Your task to perform on an android device: Add "bose soundlink" to the cart on bestbuy Image 0: 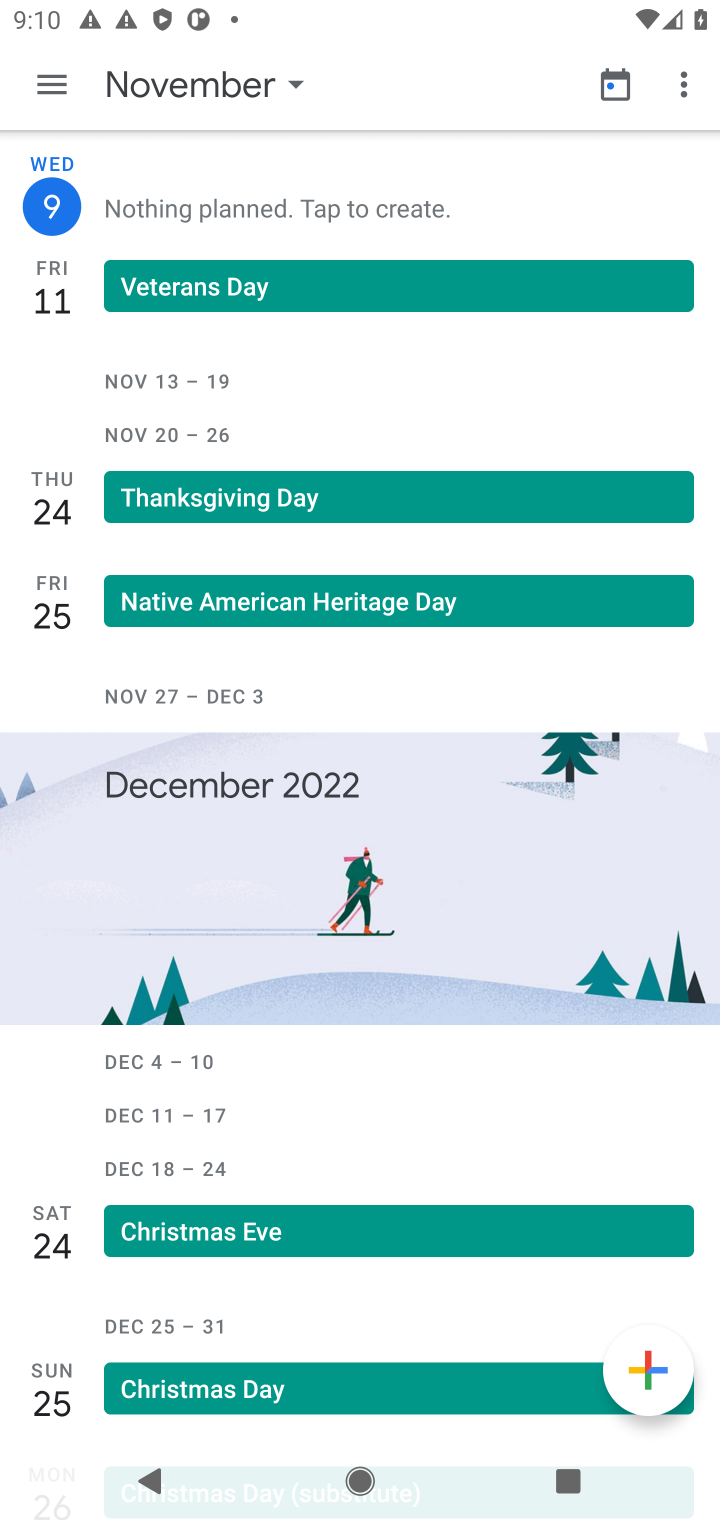
Step 0: press home button
Your task to perform on an android device: Add "bose soundlink" to the cart on bestbuy Image 1: 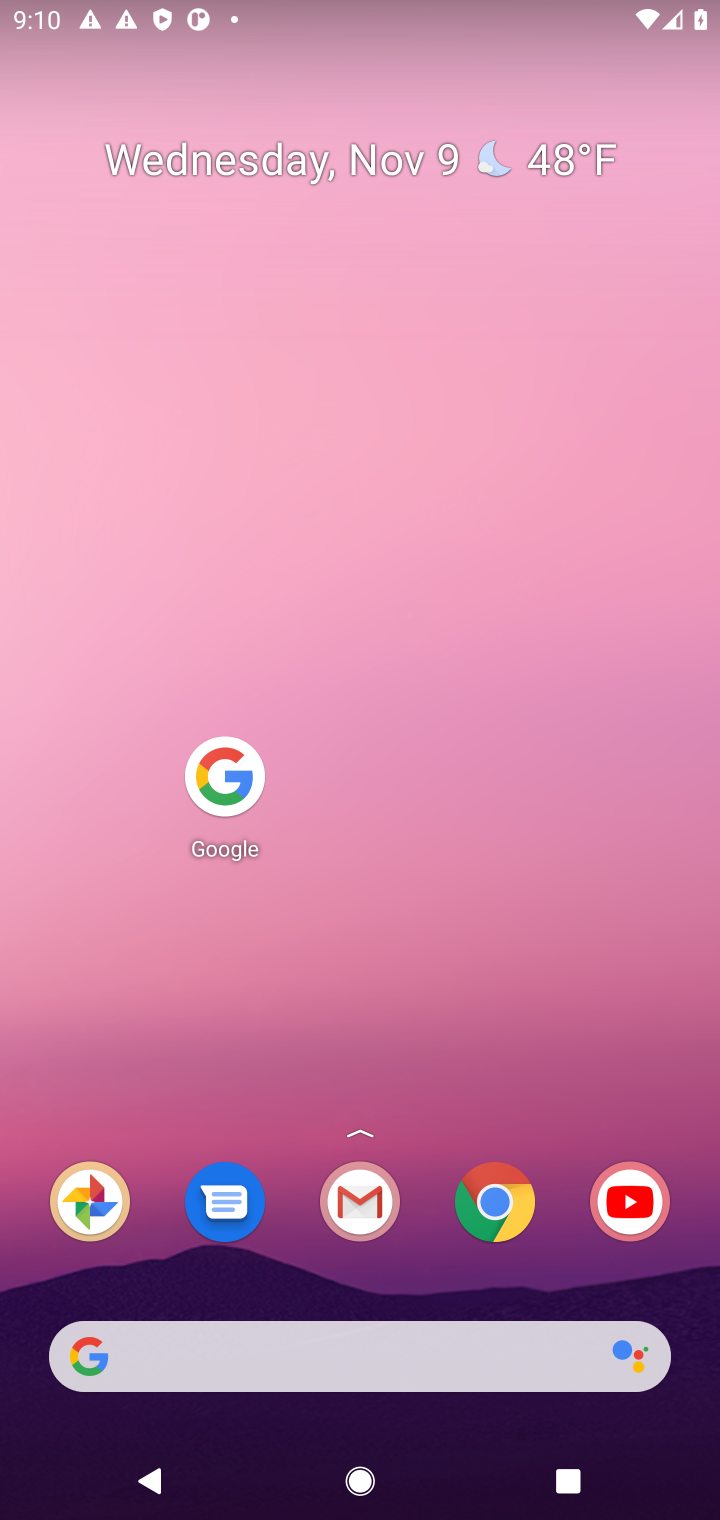
Step 1: click (228, 779)
Your task to perform on an android device: Add "bose soundlink" to the cart on bestbuy Image 2: 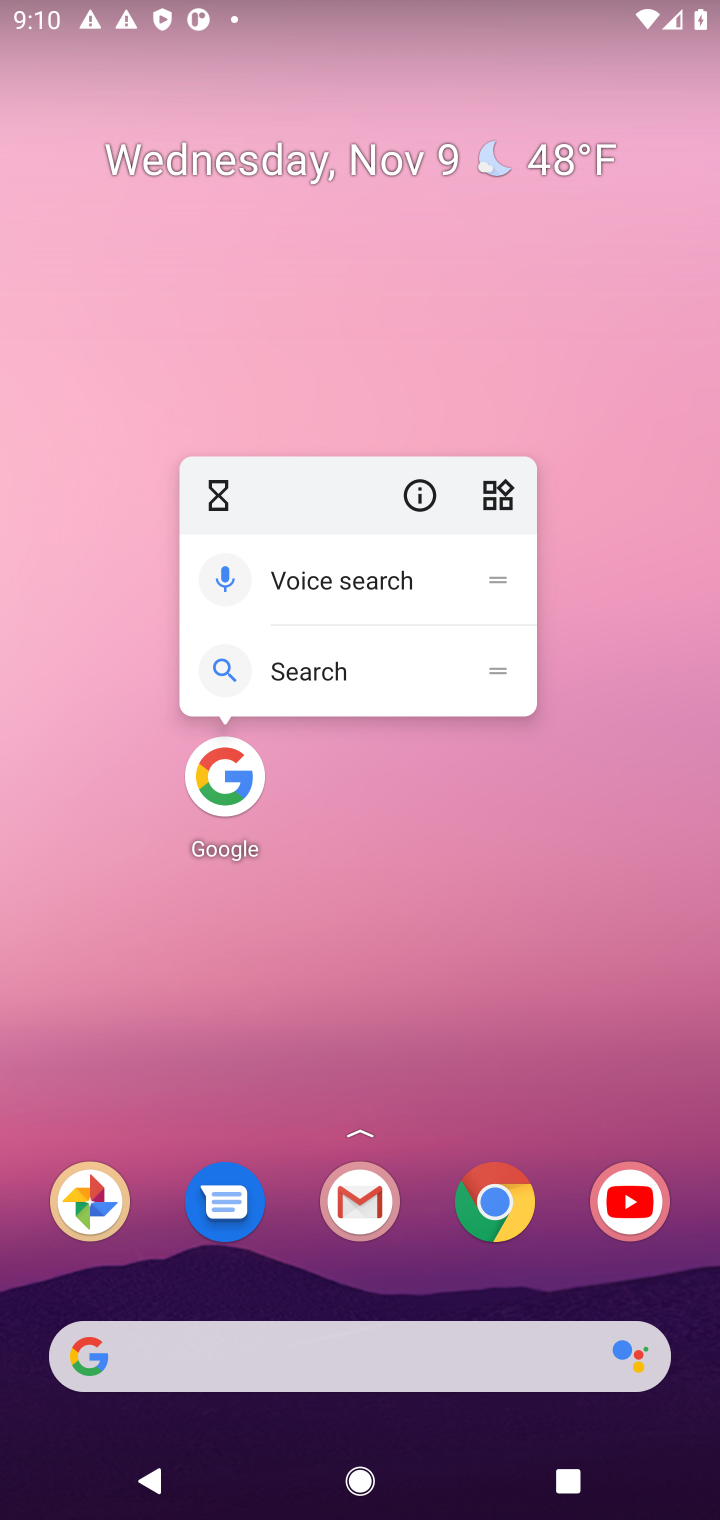
Step 2: click (228, 780)
Your task to perform on an android device: Add "bose soundlink" to the cart on bestbuy Image 3: 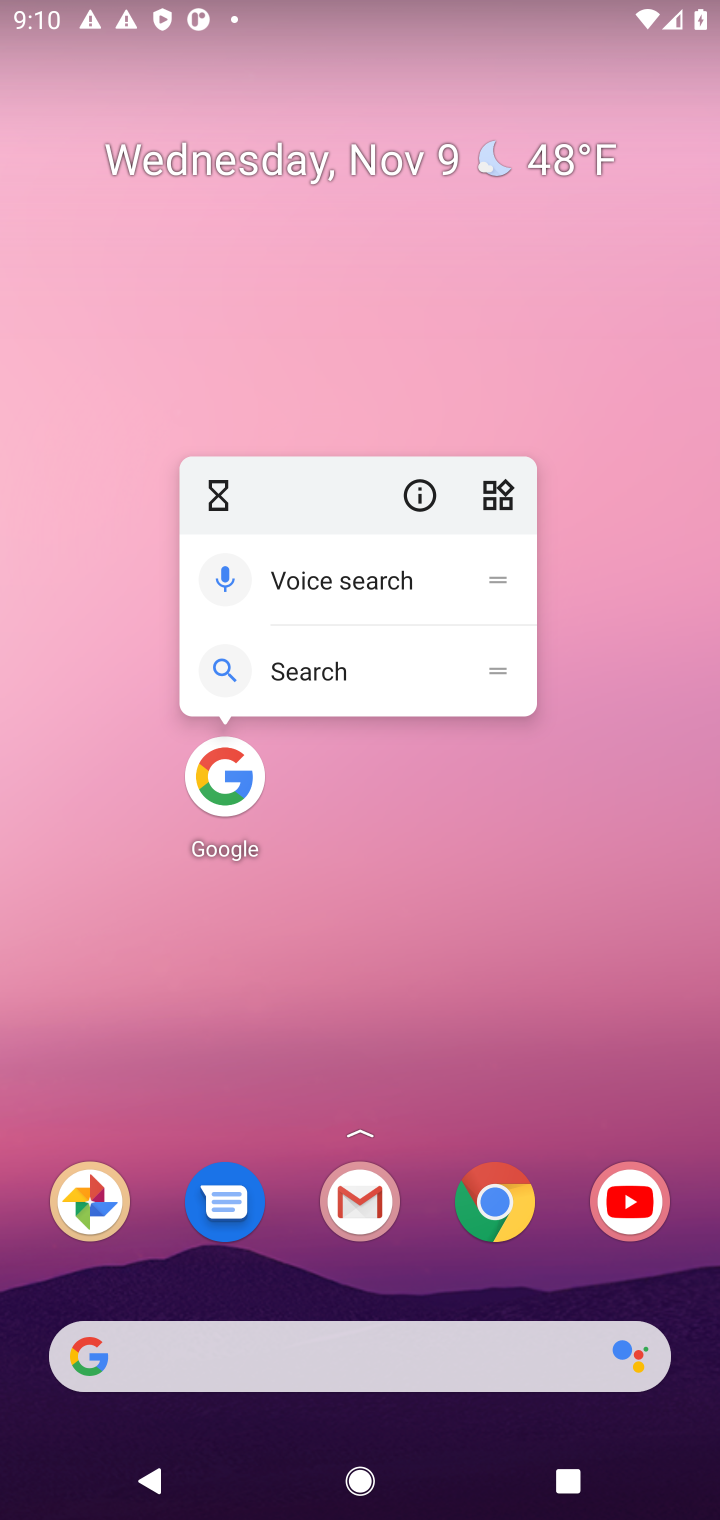
Step 3: click (228, 780)
Your task to perform on an android device: Add "bose soundlink" to the cart on bestbuy Image 4: 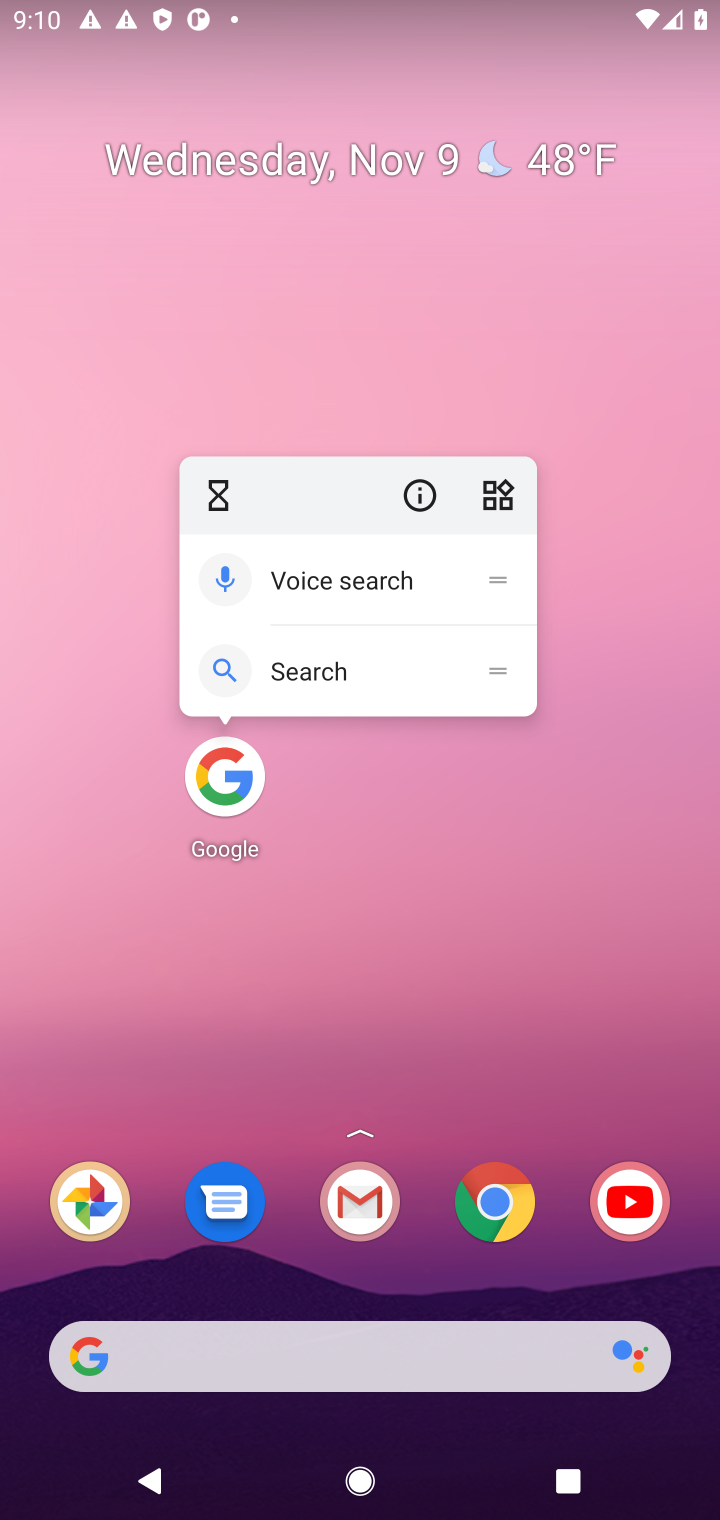
Step 4: click (228, 782)
Your task to perform on an android device: Add "bose soundlink" to the cart on bestbuy Image 5: 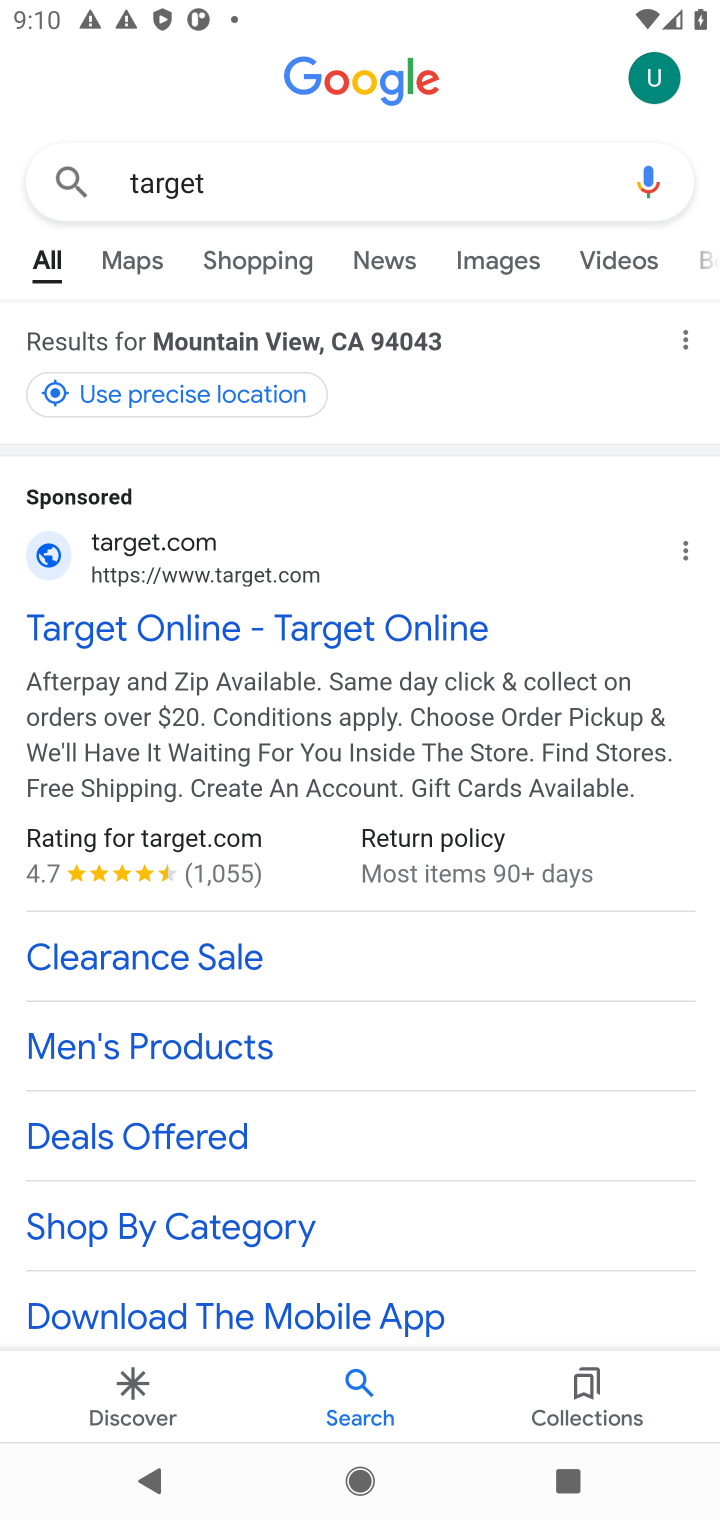
Step 5: click (420, 173)
Your task to perform on an android device: Add "bose soundlink" to the cart on bestbuy Image 6: 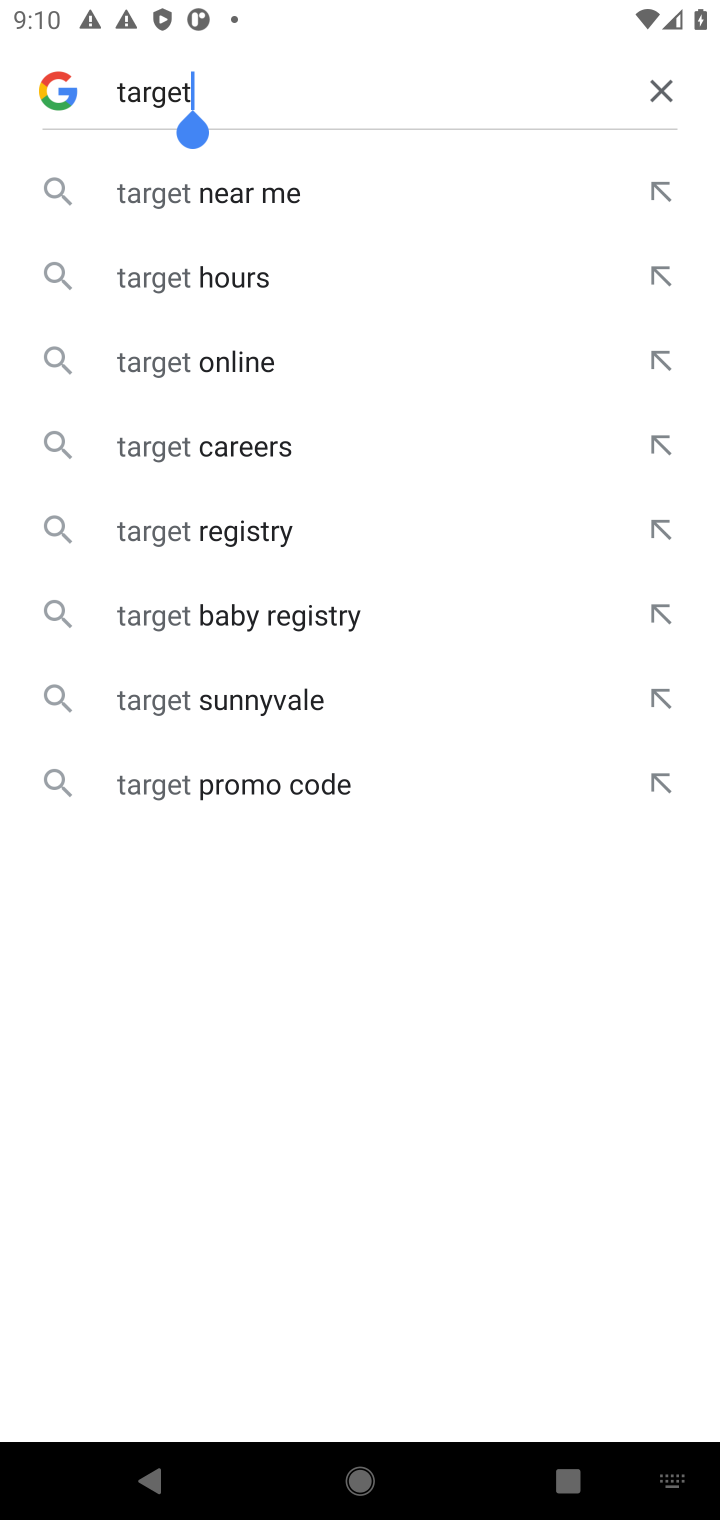
Step 6: click (658, 79)
Your task to perform on an android device: Add "bose soundlink" to the cart on bestbuy Image 7: 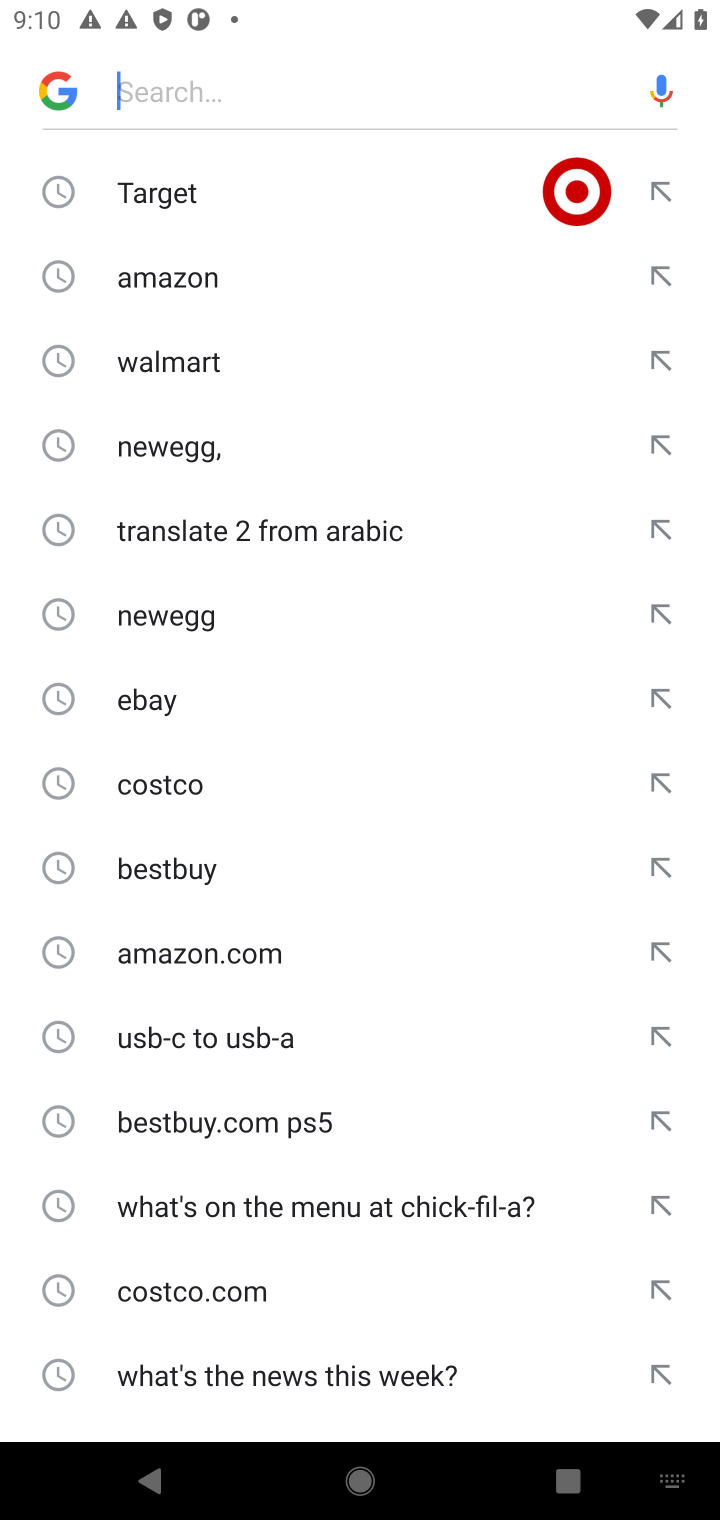
Step 7: click (154, 870)
Your task to perform on an android device: Add "bose soundlink" to the cart on bestbuy Image 8: 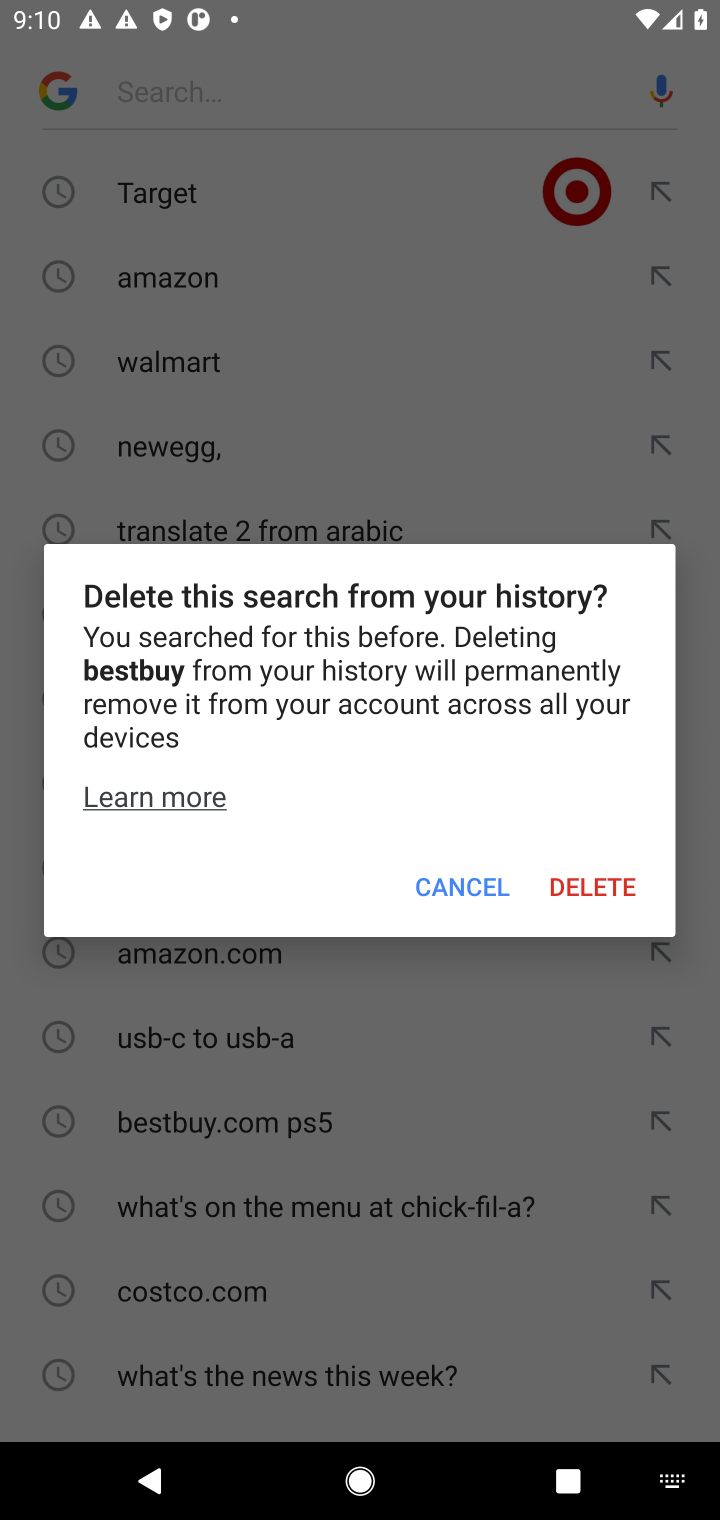
Step 8: click (466, 889)
Your task to perform on an android device: Add "bose soundlink" to the cart on bestbuy Image 9: 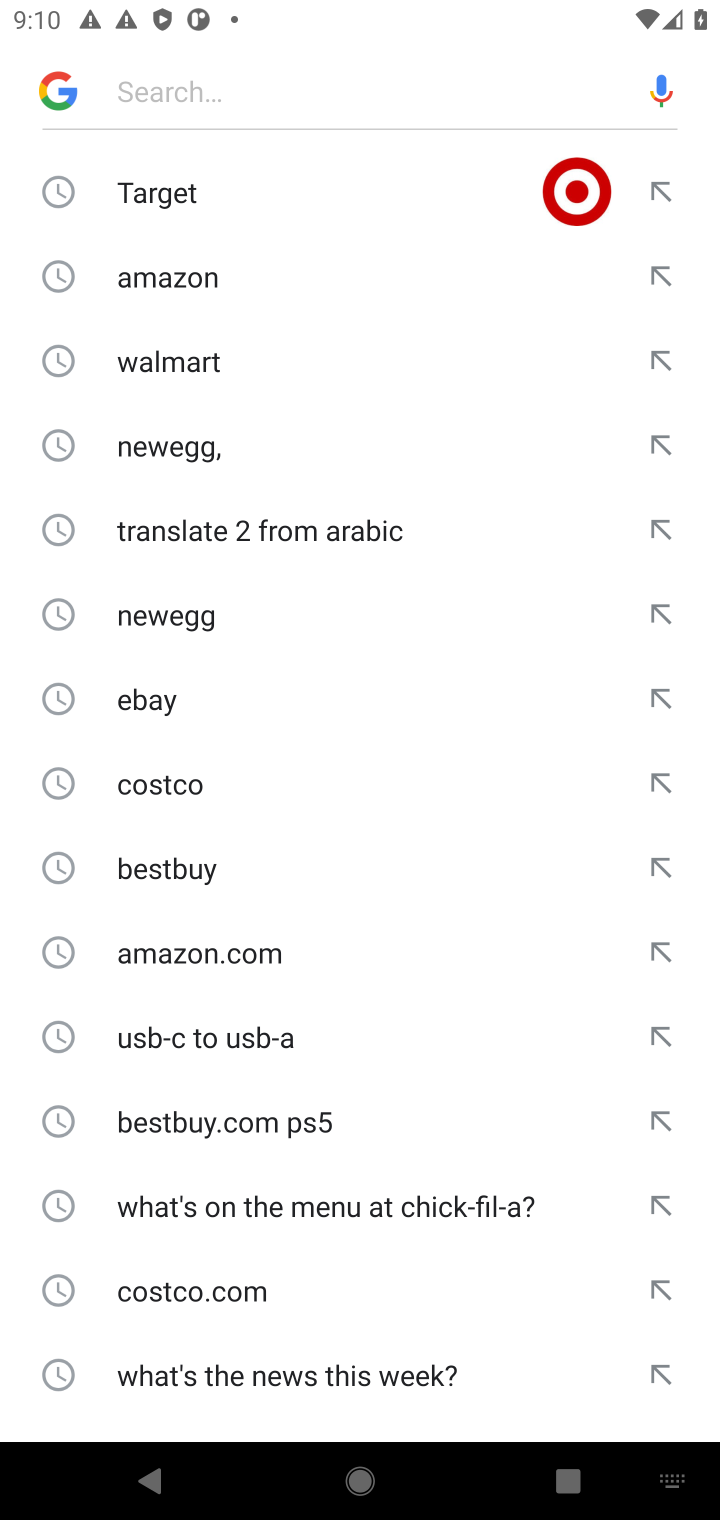
Step 9: click (130, 865)
Your task to perform on an android device: Add "bose soundlink" to the cart on bestbuy Image 10: 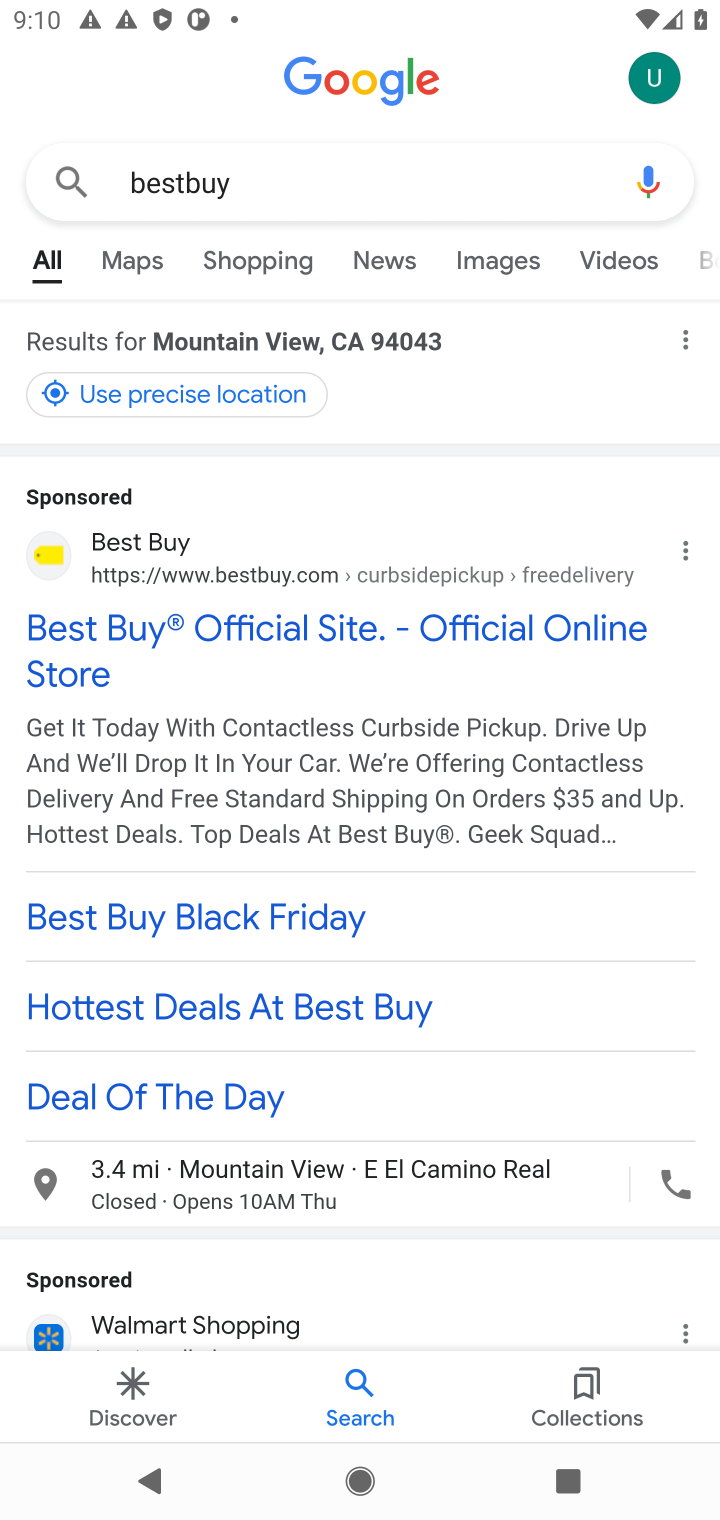
Step 10: click (107, 626)
Your task to perform on an android device: Add "bose soundlink" to the cart on bestbuy Image 11: 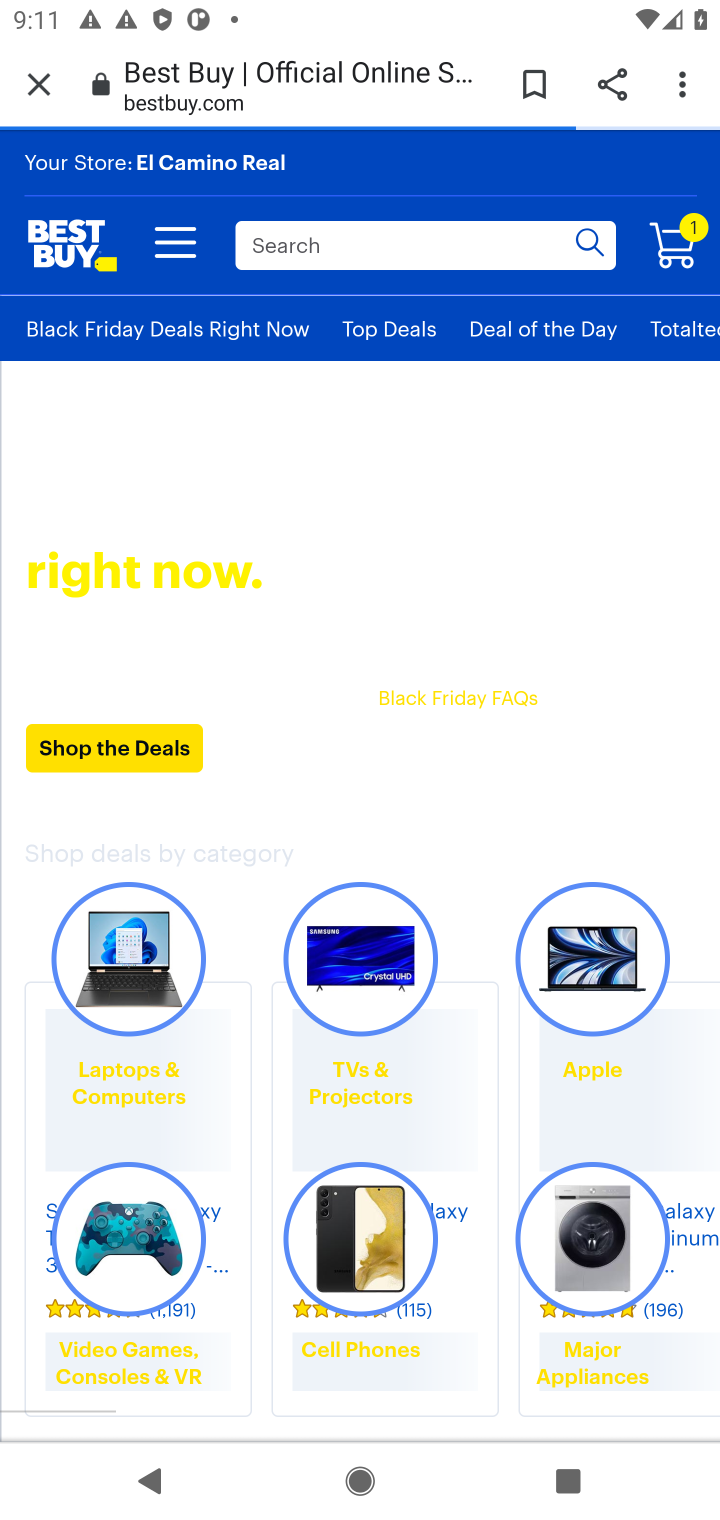
Step 11: click (396, 249)
Your task to perform on an android device: Add "bose soundlink" to the cart on bestbuy Image 12: 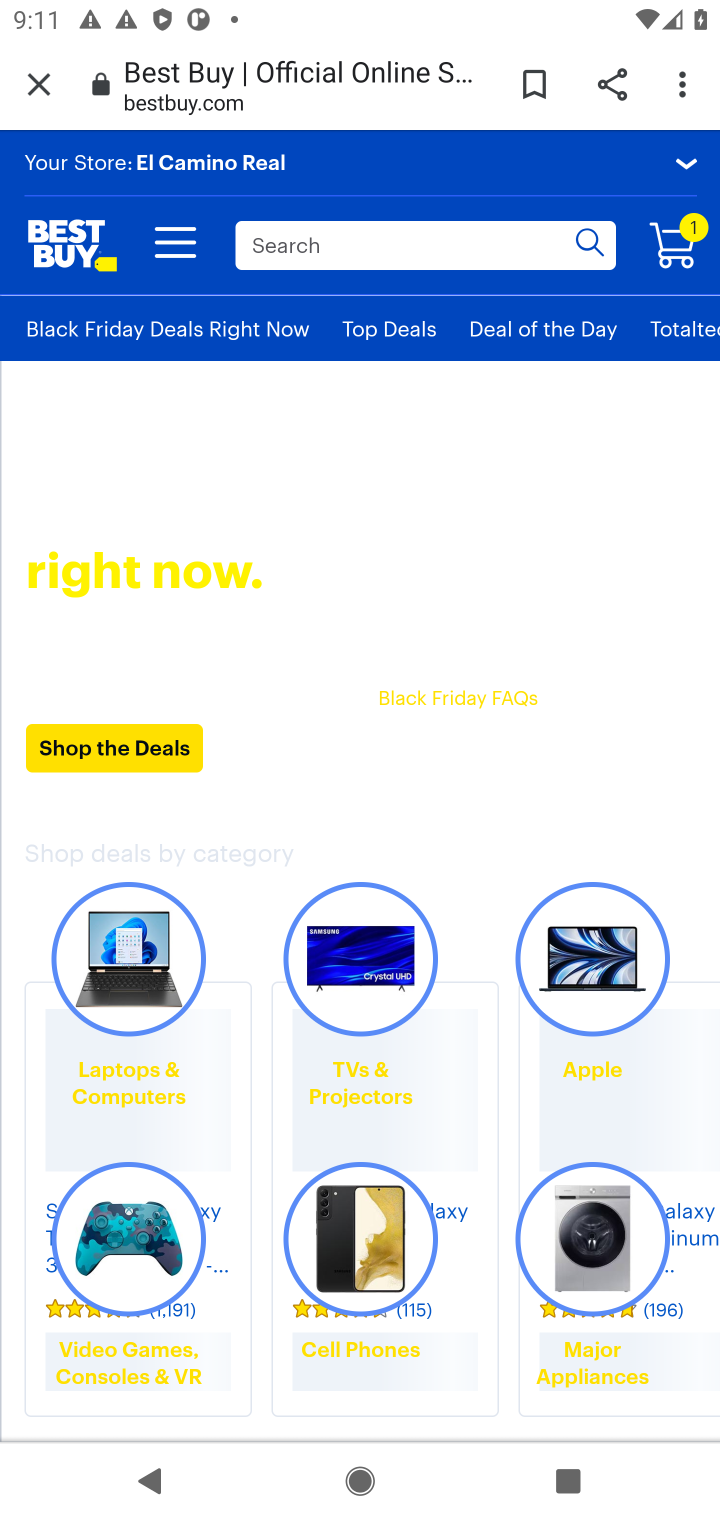
Step 12: type "bose soundlink"
Your task to perform on an android device: Add "bose soundlink" to the cart on bestbuy Image 13: 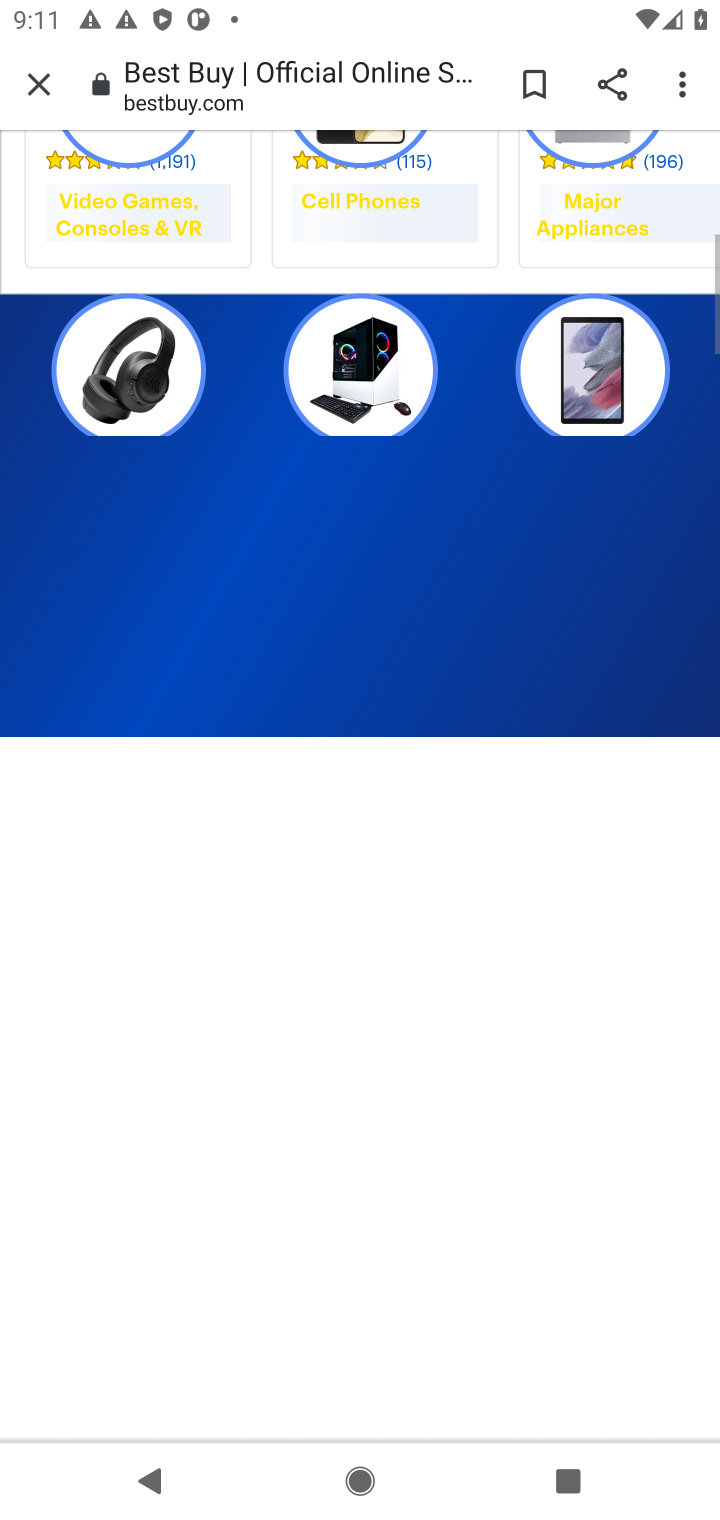
Step 13: press enter
Your task to perform on an android device: Add "bose soundlink" to the cart on bestbuy Image 14: 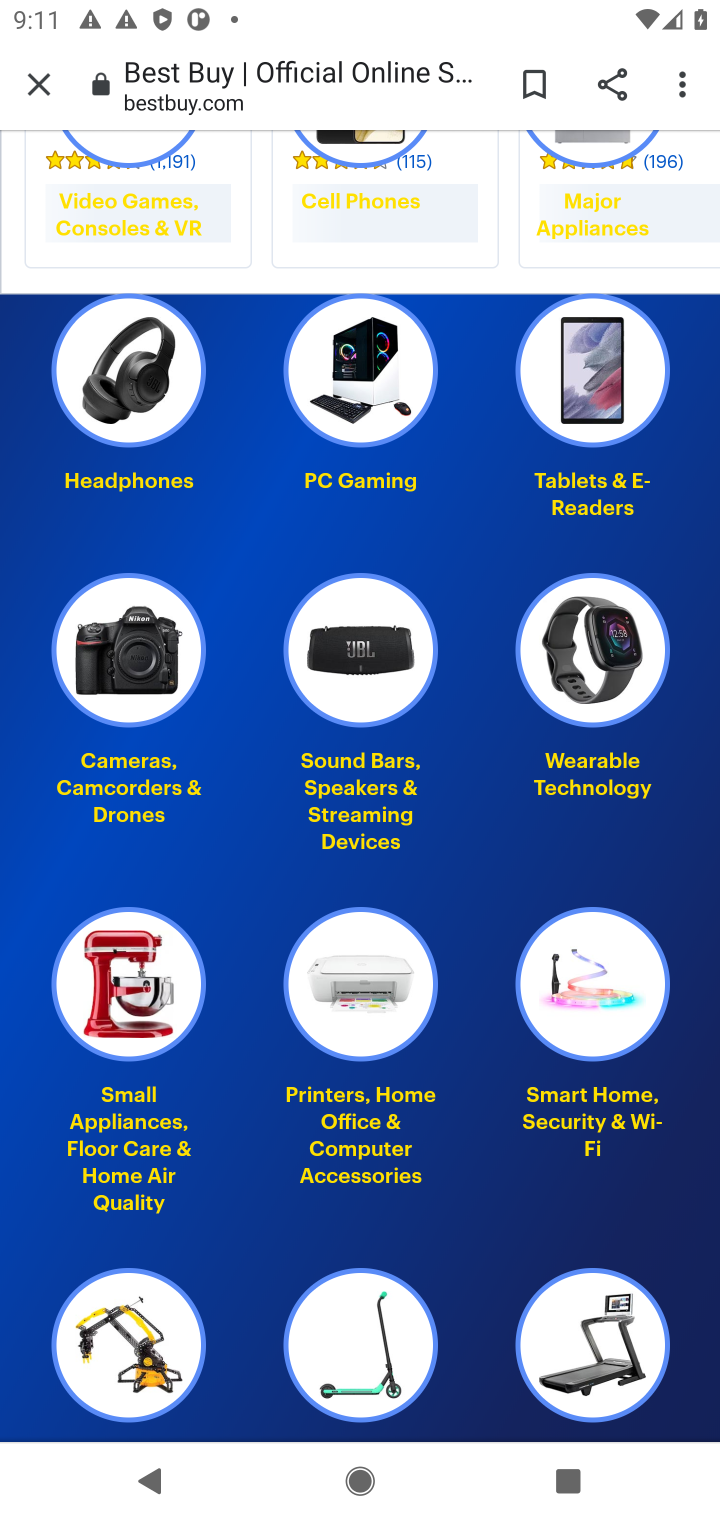
Step 14: drag from (276, 293) to (516, 1265)
Your task to perform on an android device: Add "bose soundlink" to the cart on bestbuy Image 15: 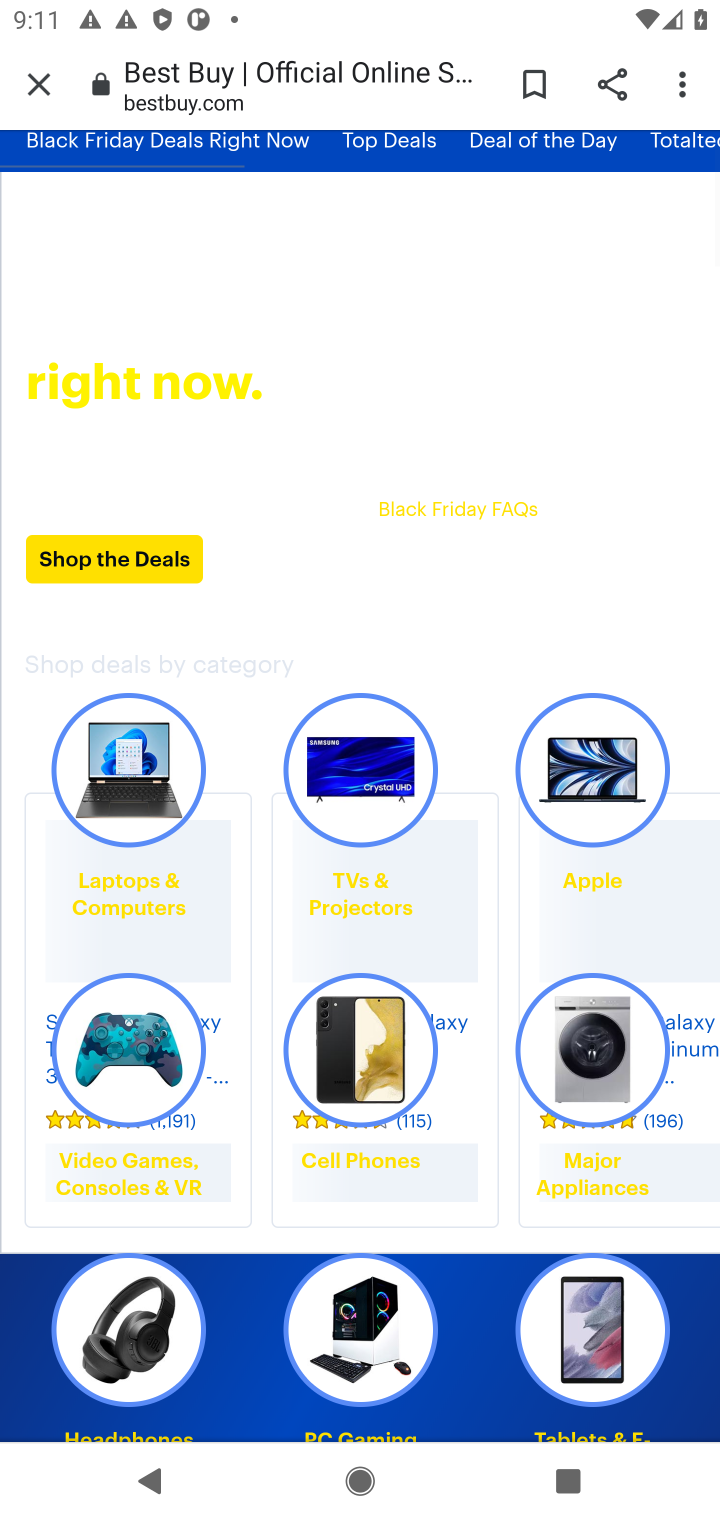
Step 15: drag from (385, 274) to (568, 1251)
Your task to perform on an android device: Add "bose soundlink" to the cart on bestbuy Image 16: 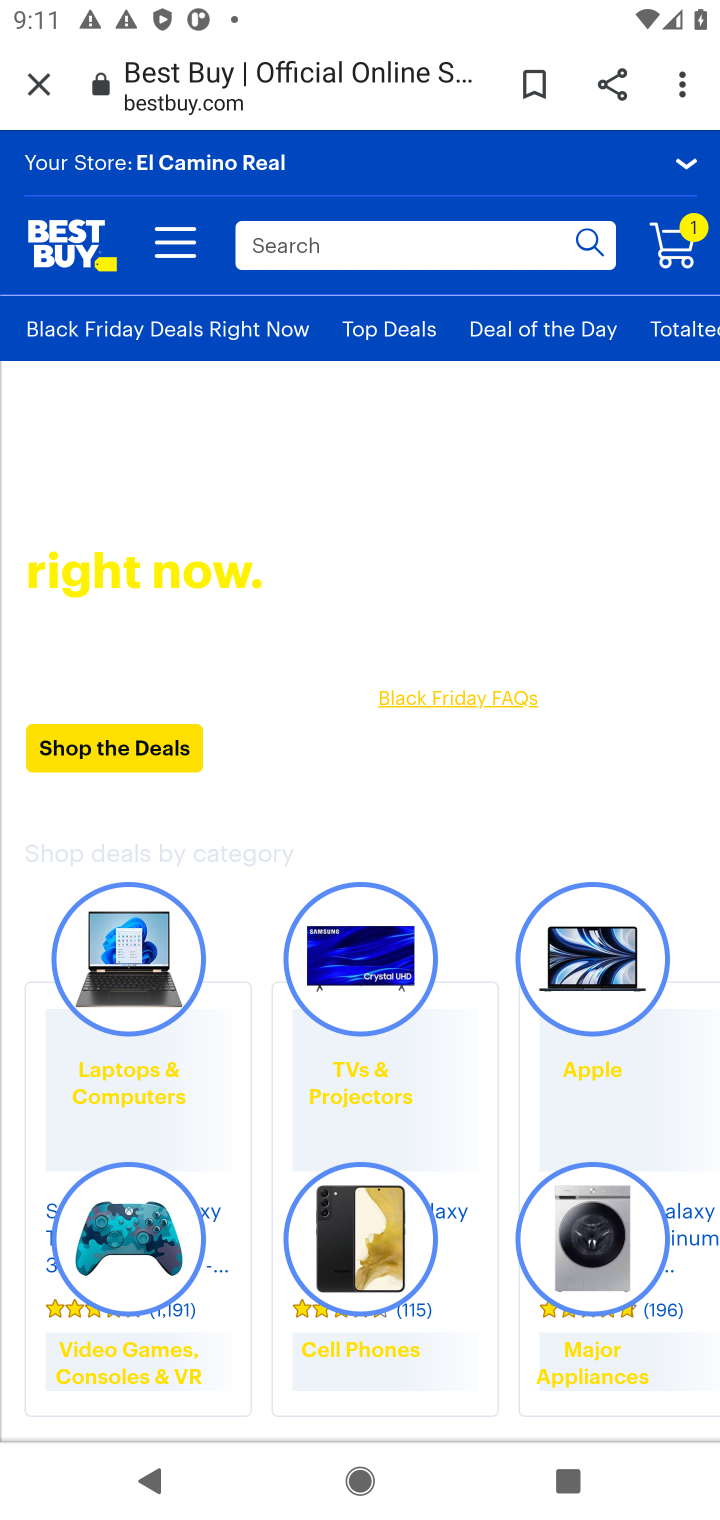
Step 16: click (354, 242)
Your task to perform on an android device: Add "bose soundlink" to the cart on bestbuy Image 17: 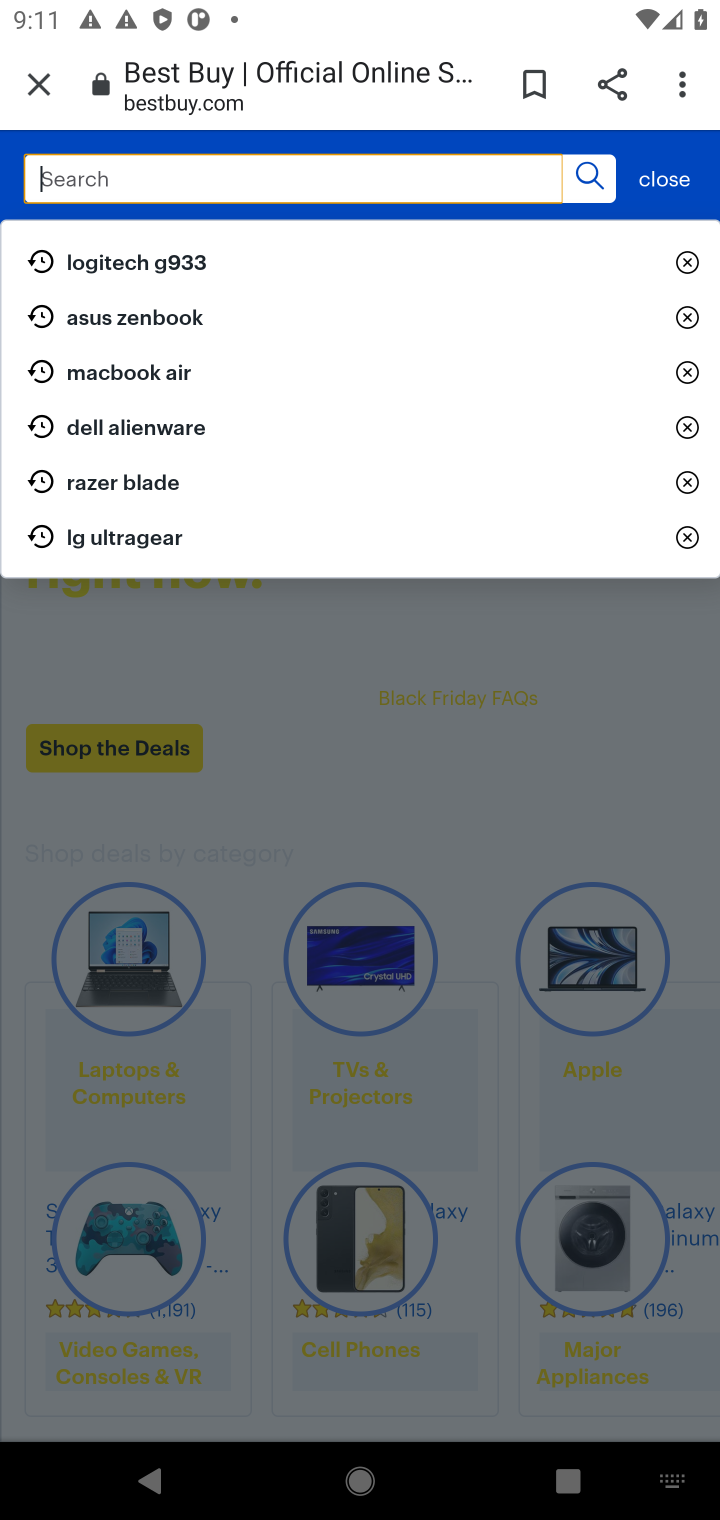
Step 17: type "bose soundlink"
Your task to perform on an android device: Add "bose soundlink" to the cart on bestbuy Image 18: 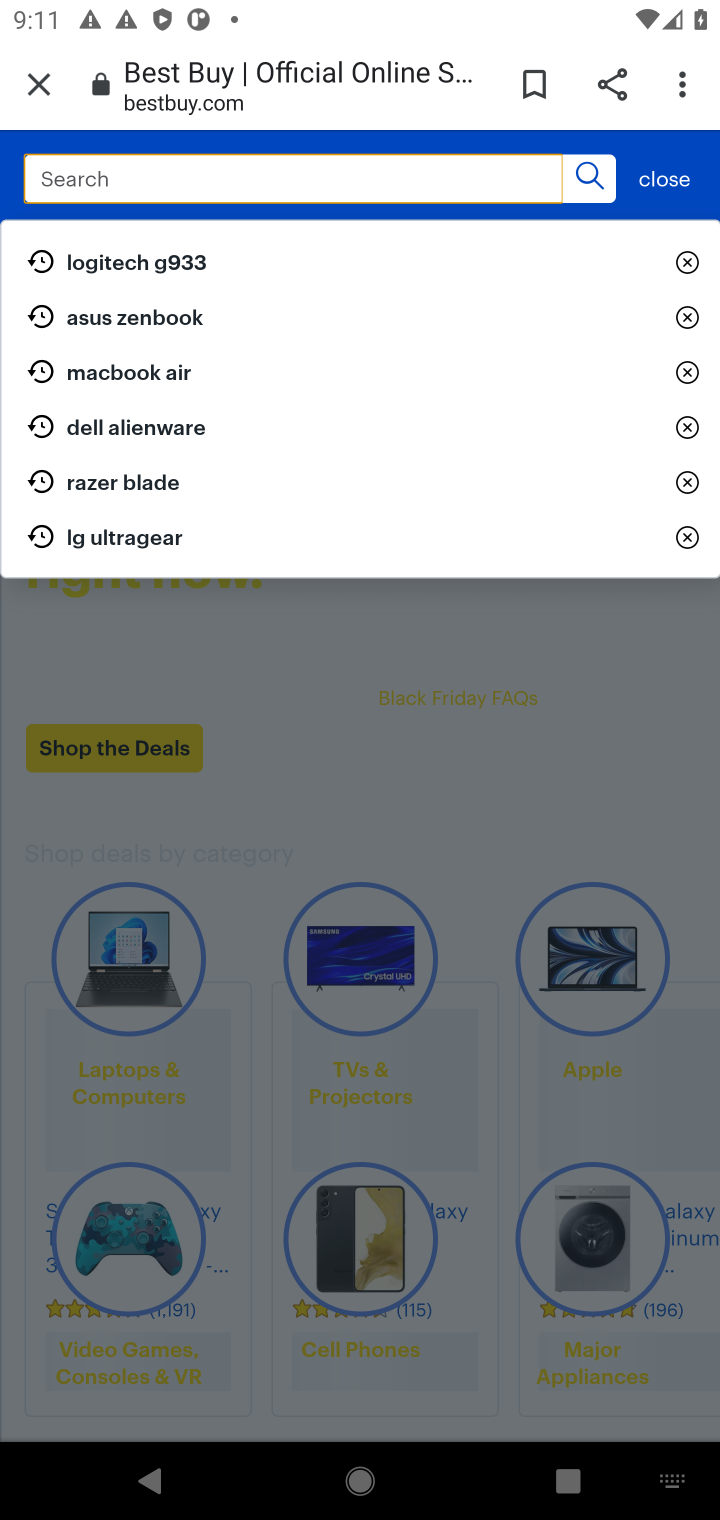
Step 18: press enter
Your task to perform on an android device: Add "bose soundlink" to the cart on bestbuy Image 19: 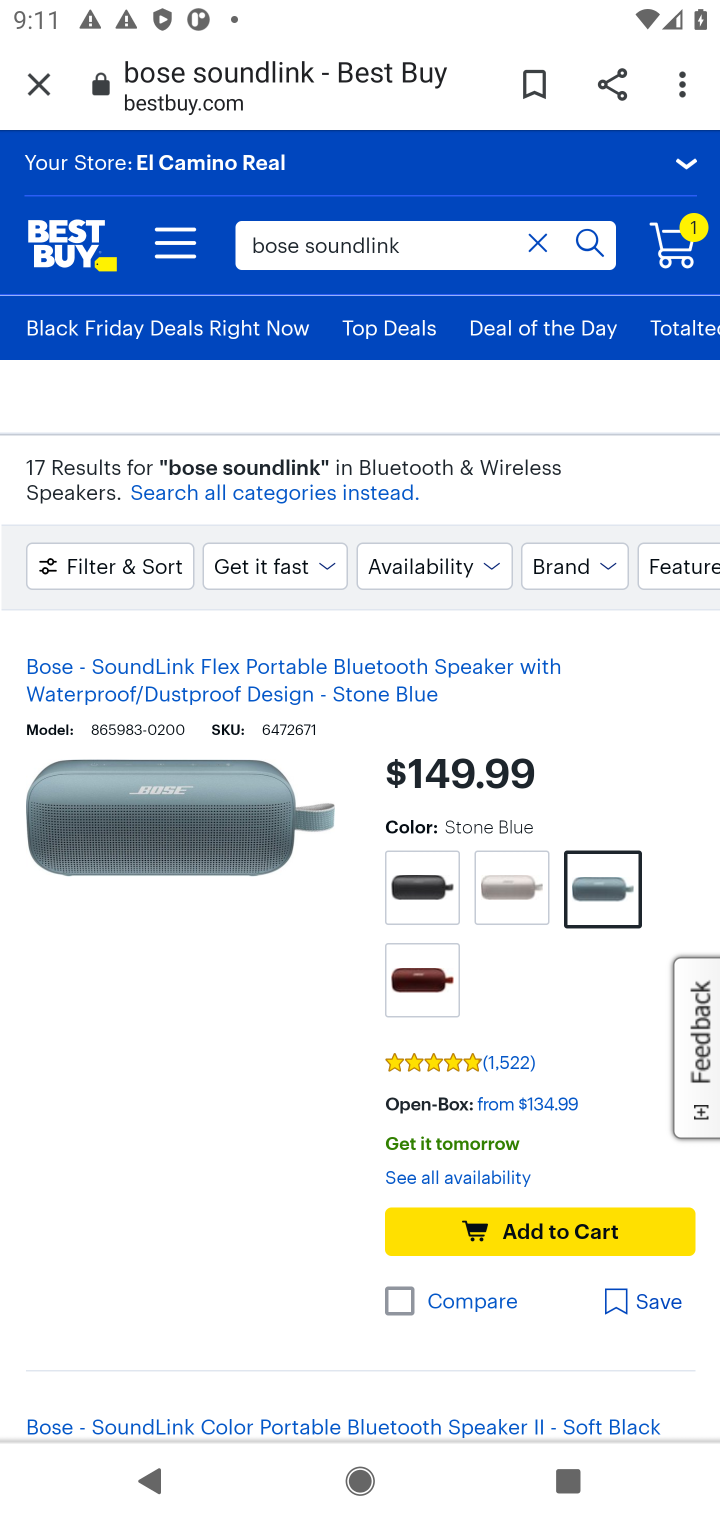
Step 19: drag from (262, 1129) to (567, 437)
Your task to perform on an android device: Add "bose soundlink" to the cart on bestbuy Image 20: 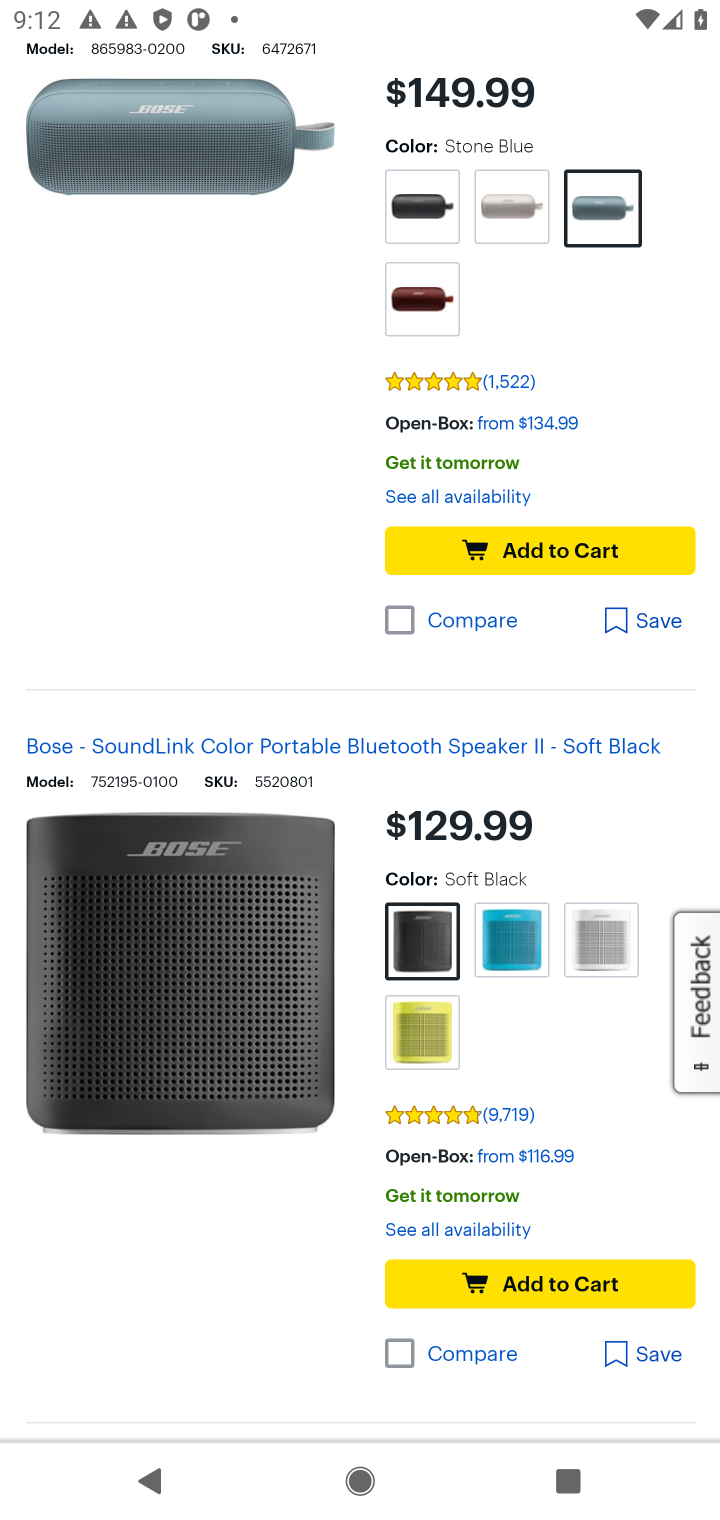
Step 20: click (523, 546)
Your task to perform on an android device: Add "bose soundlink" to the cart on bestbuy Image 21: 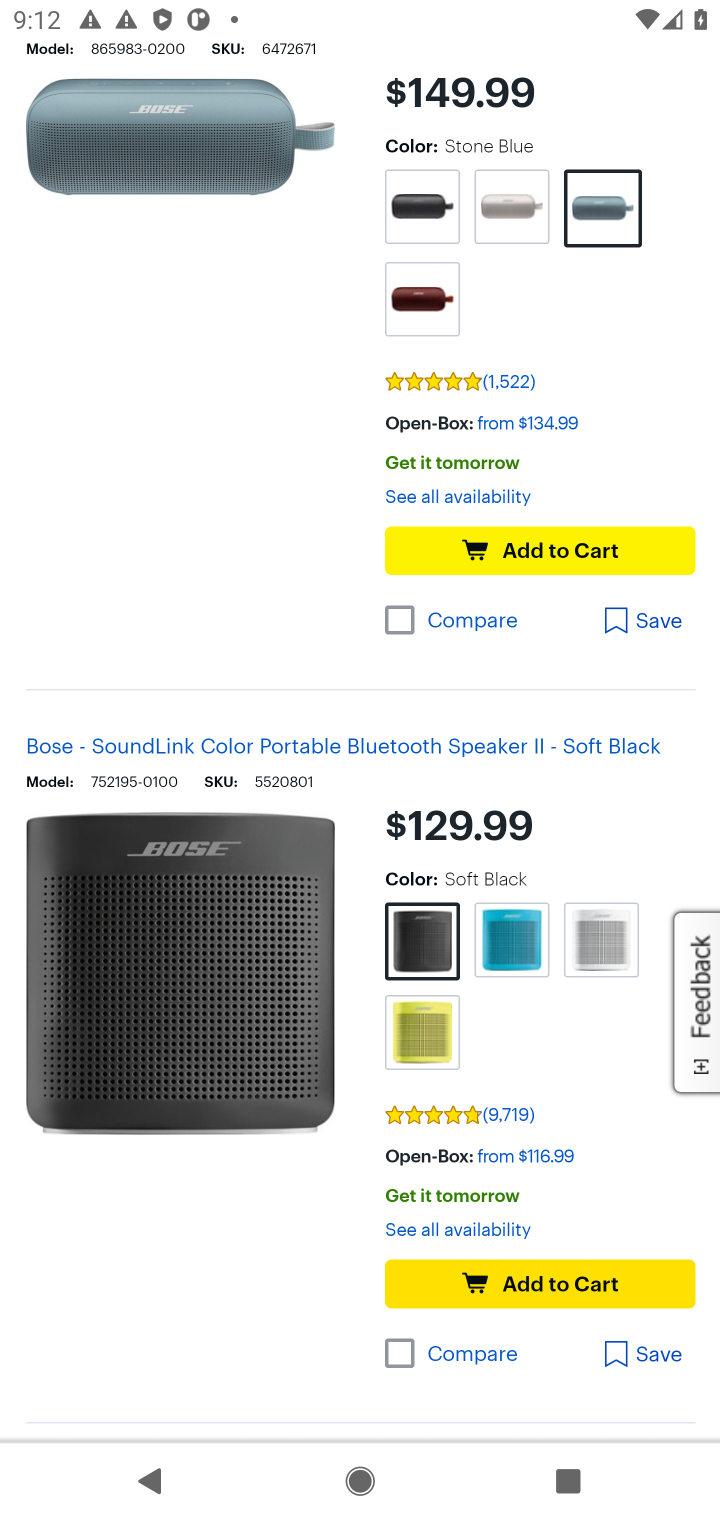
Step 21: drag from (347, 423) to (507, 1264)
Your task to perform on an android device: Add "bose soundlink" to the cart on bestbuy Image 22: 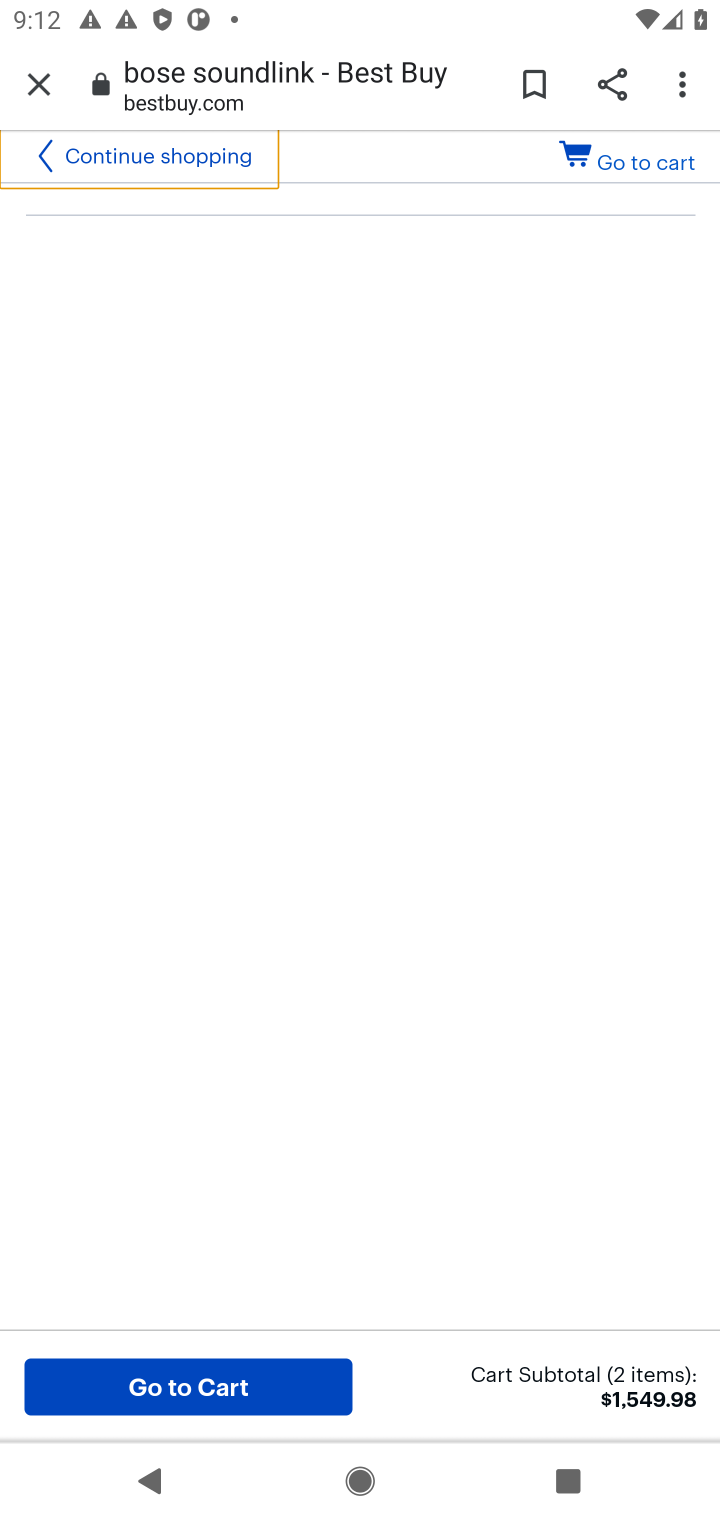
Step 22: click (656, 153)
Your task to perform on an android device: Add "bose soundlink" to the cart on bestbuy Image 23: 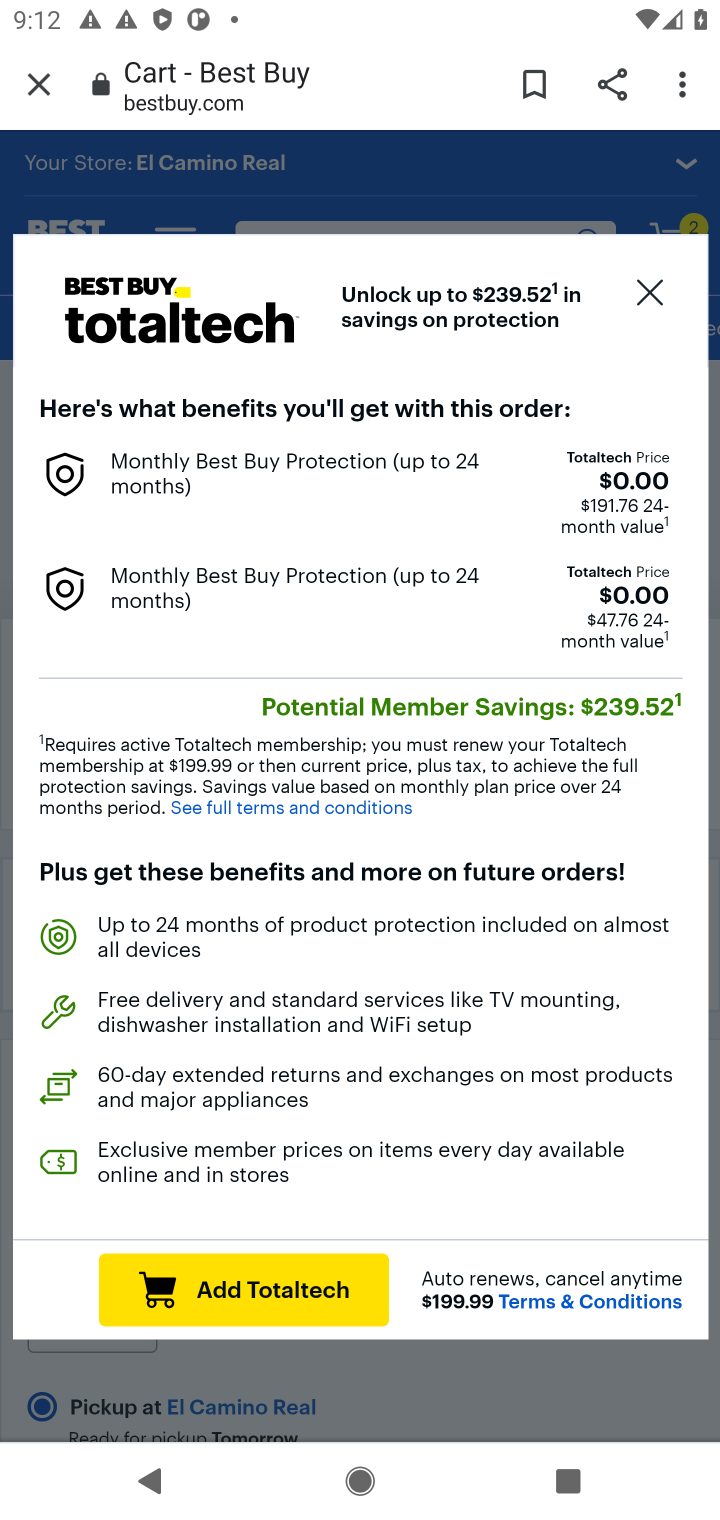
Step 23: click (640, 277)
Your task to perform on an android device: Add "bose soundlink" to the cart on bestbuy Image 24: 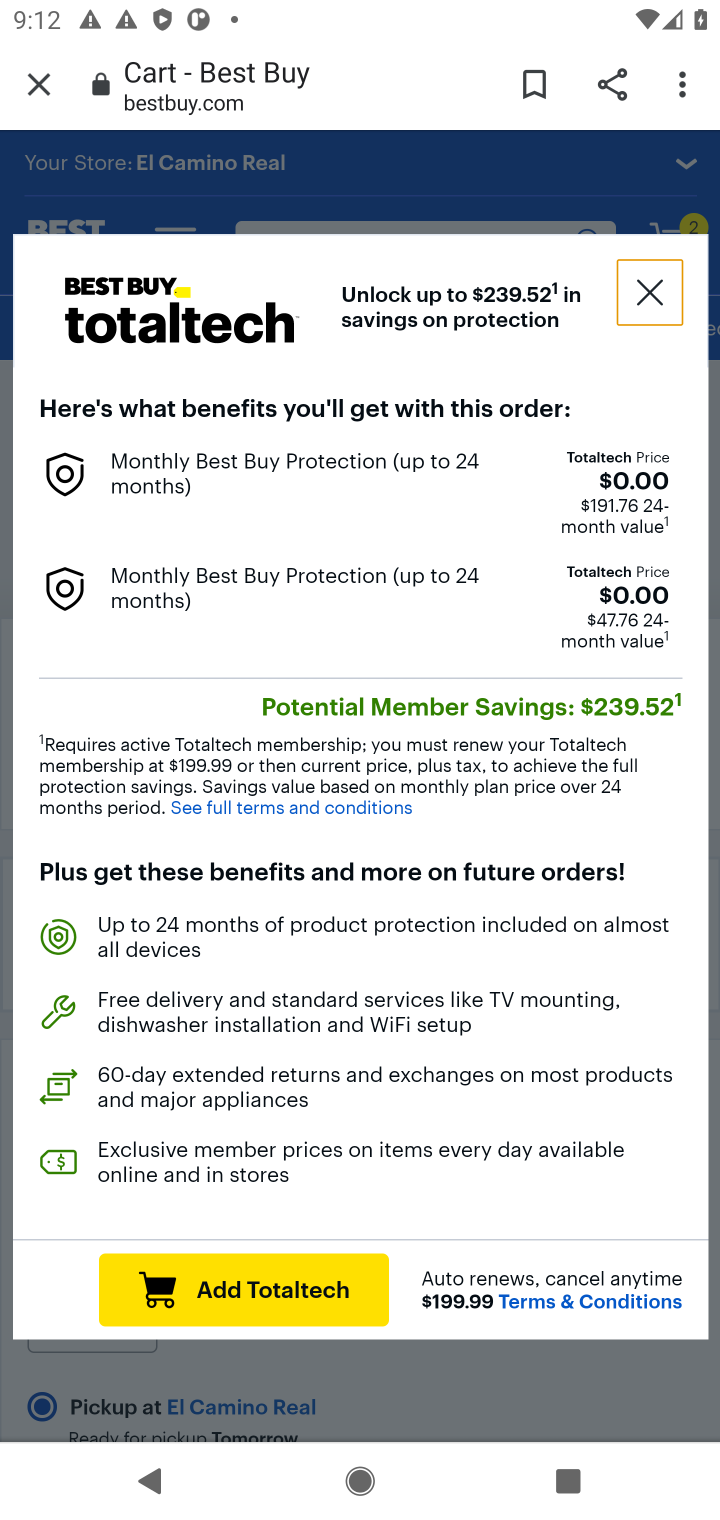
Step 24: click (644, 289)
Your task to perform on an android device: Add "bose soundlink" to the cart on bestbuy Image 25: 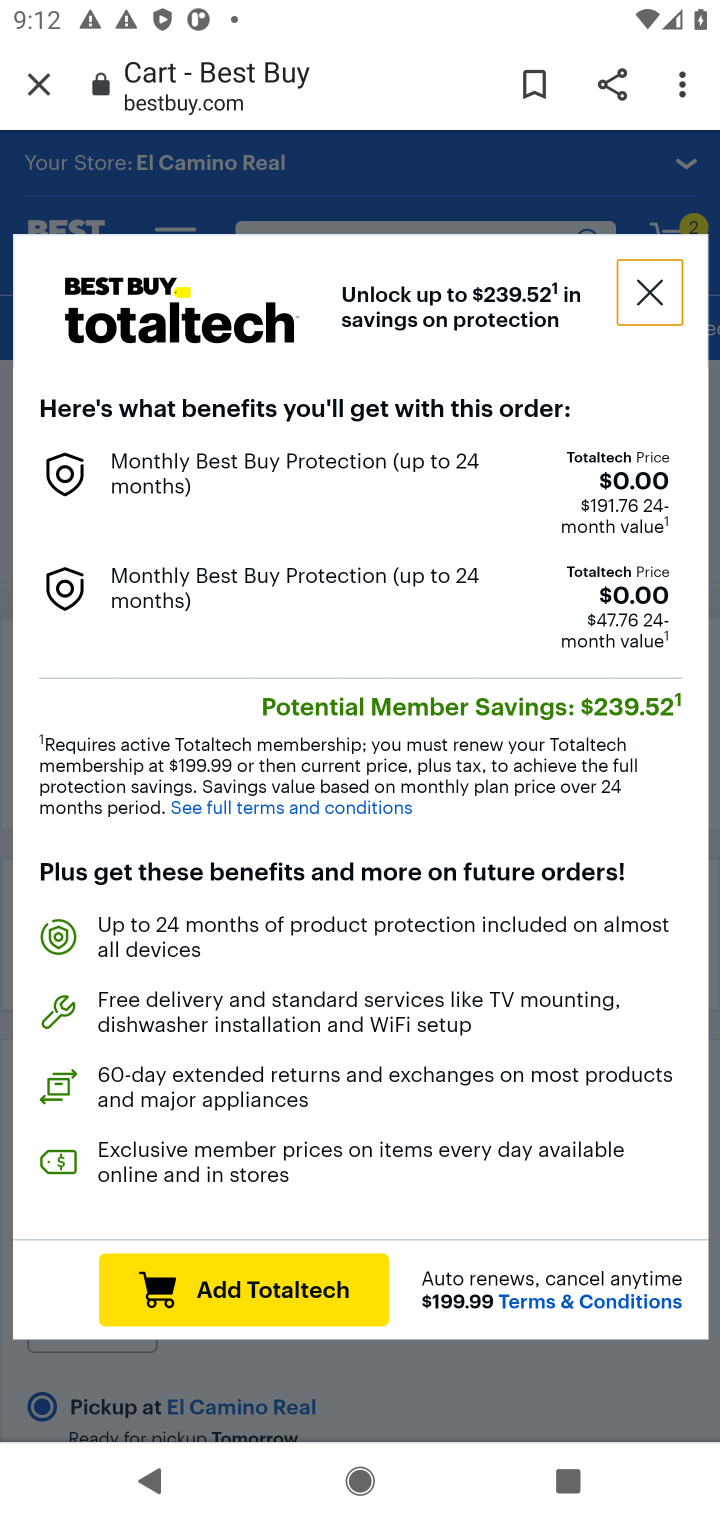
Step 25: click (650, 288)
Your task to perform on an android device: Add "bose soundlink" to the cart on bestbuy Image 26: 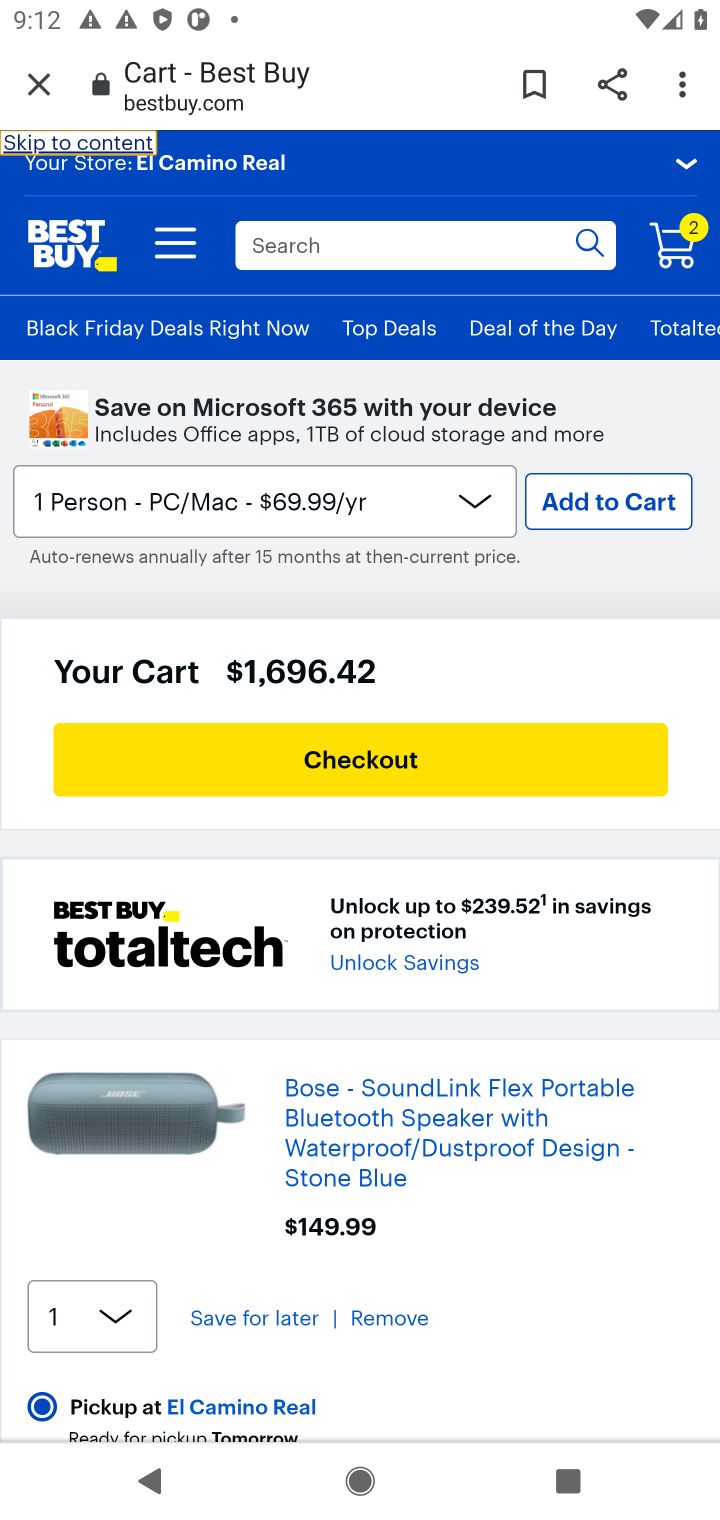
Step 26: drag from (243, 1074) to (387, 542)
Your task to perform on an android device: Add "bose soundlink" to the cart on bestbuy Image 27: 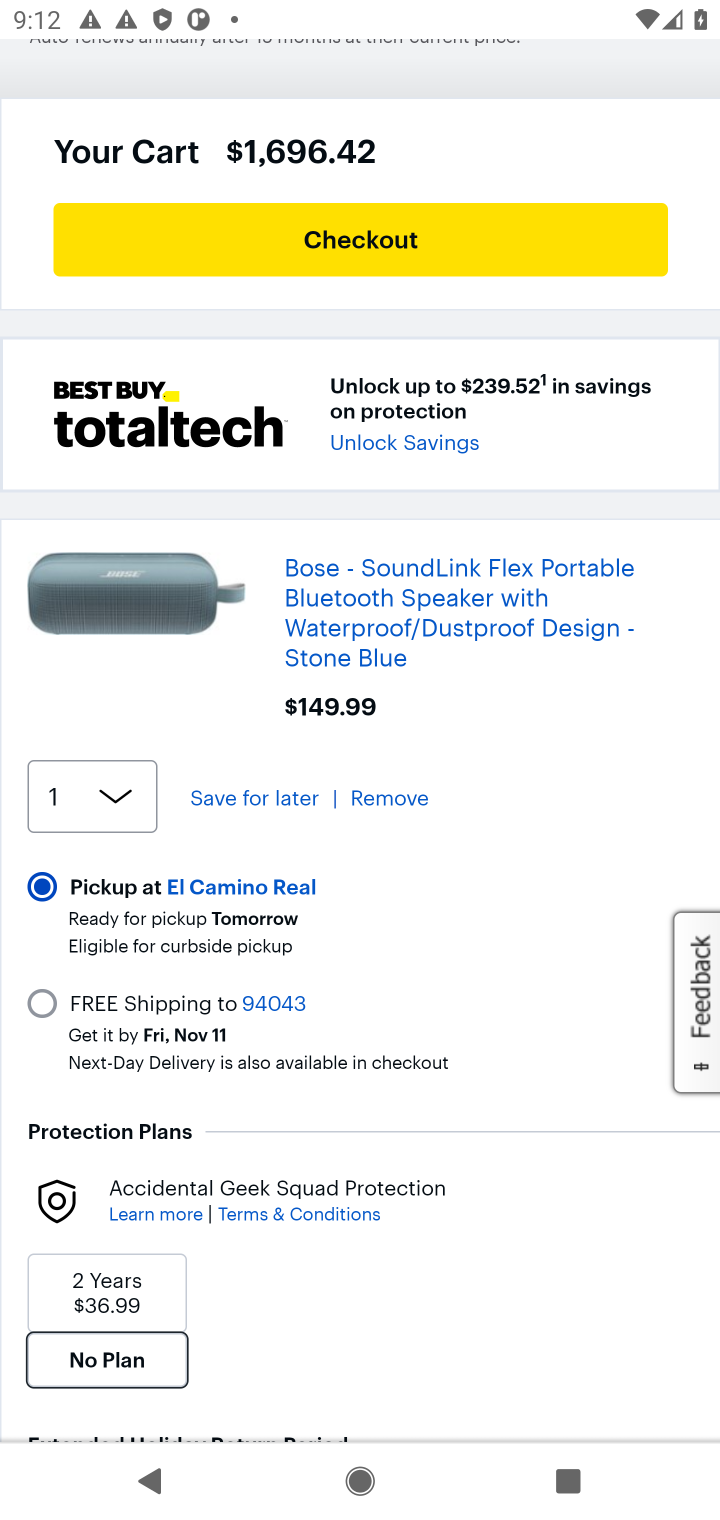
Step 27: drag from (397, 911) to (456, 322)
Your task to perform on an android device: Add "bose soundlink" to the cart on bestbuy Image 28: 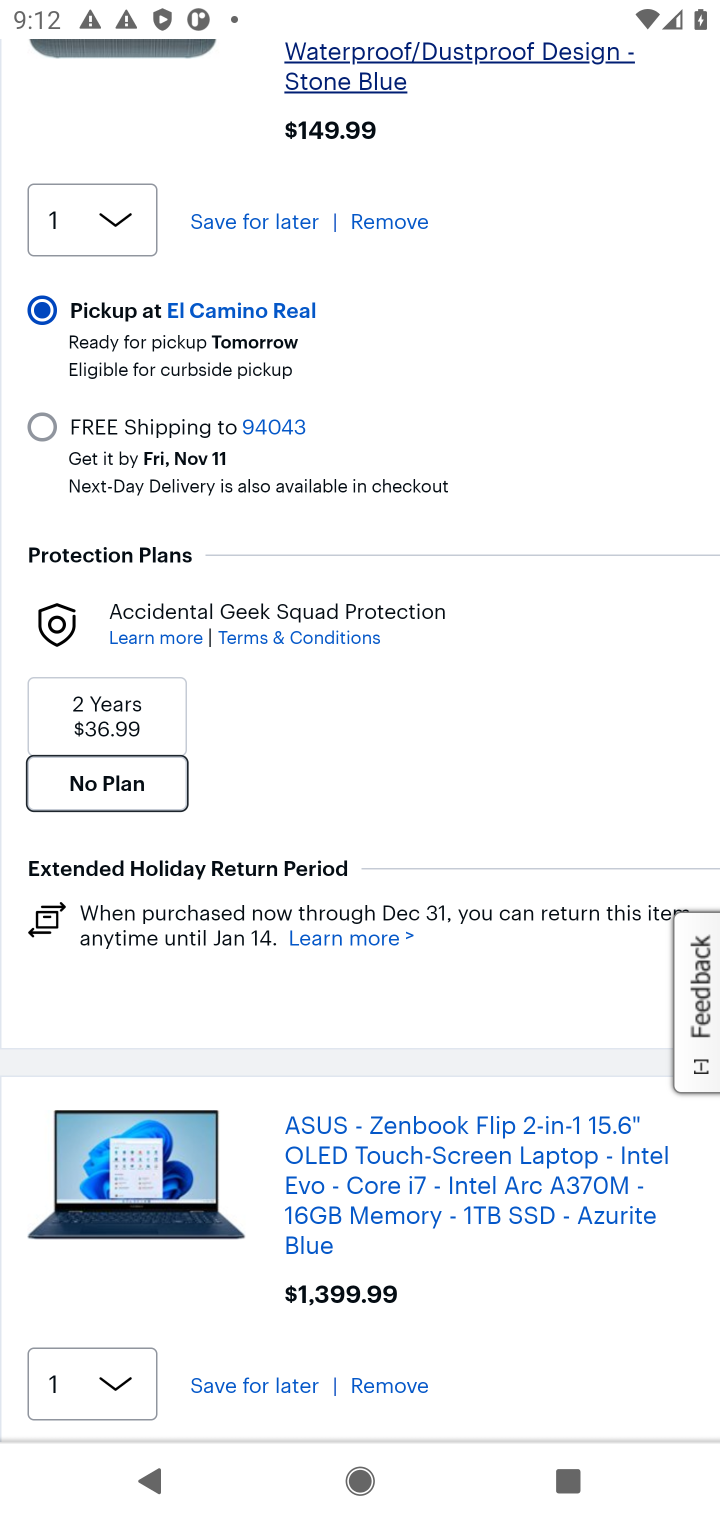
Step 28: click (403, 1378)
Your task to perform on an android device: Add "bose soundlink" to the cart on bestbuy Image 29: 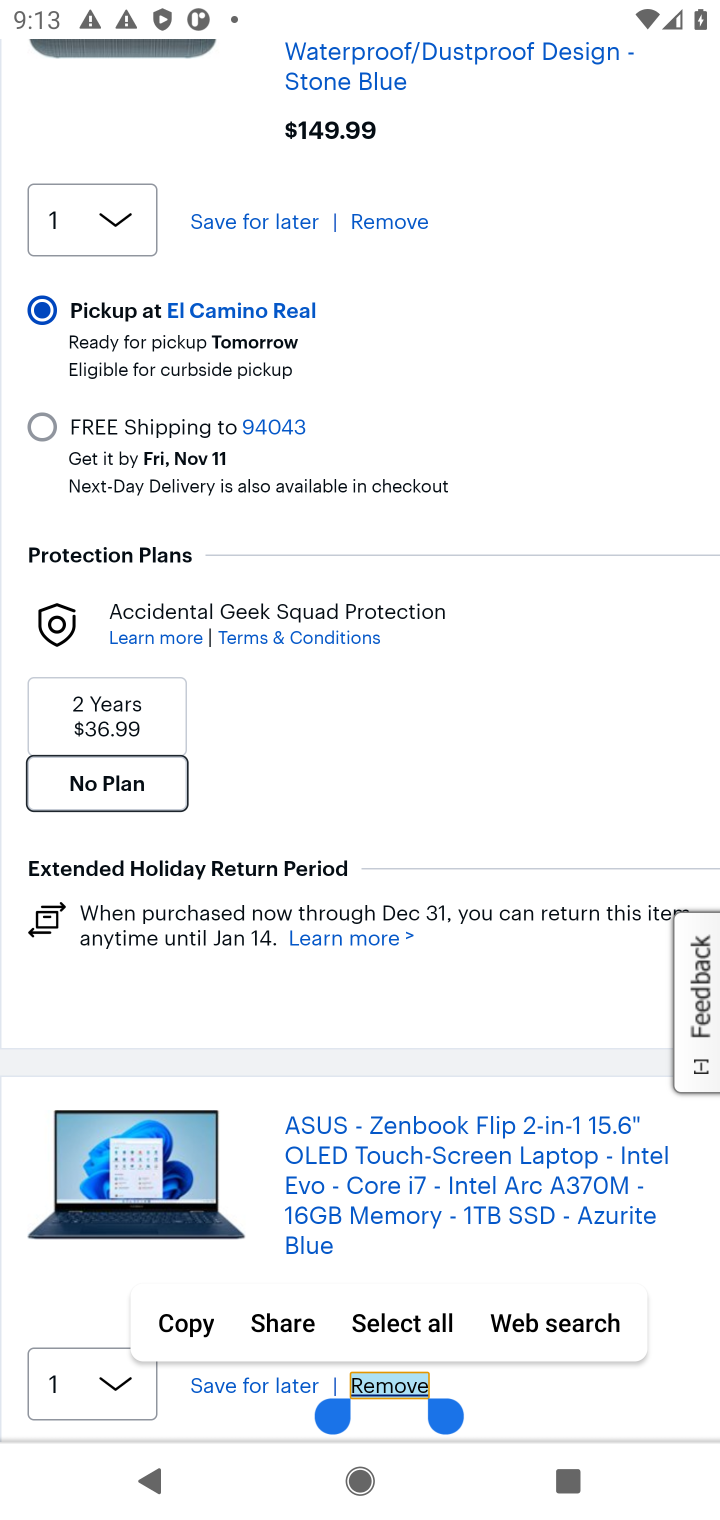
Step 29: click (379, 1391)
Your task to perform on an android device: Add "bose soundlink" to the cart on bestbuy Image 30: 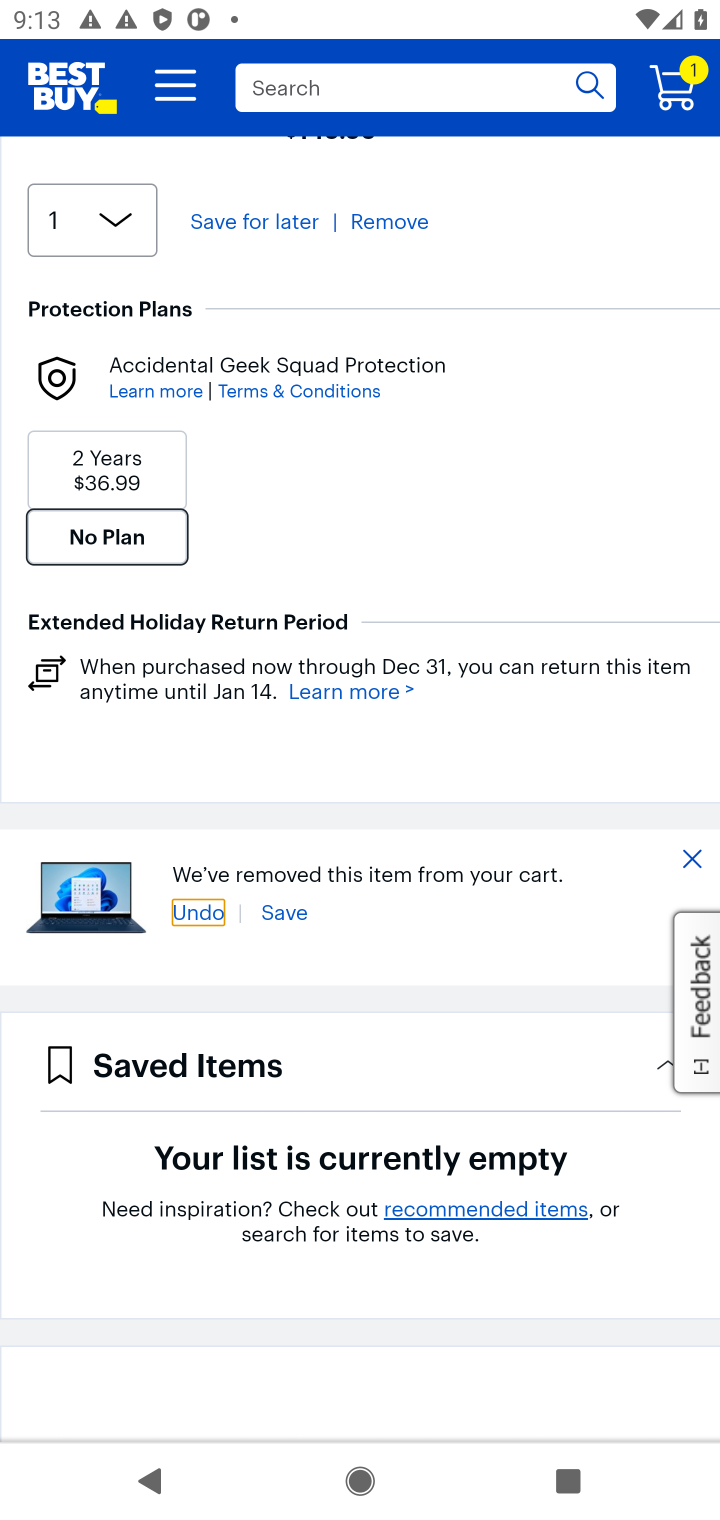
Step 30: task complete